Your task to perform on an android device: toggle priority inbox in the gmail app Image 0: 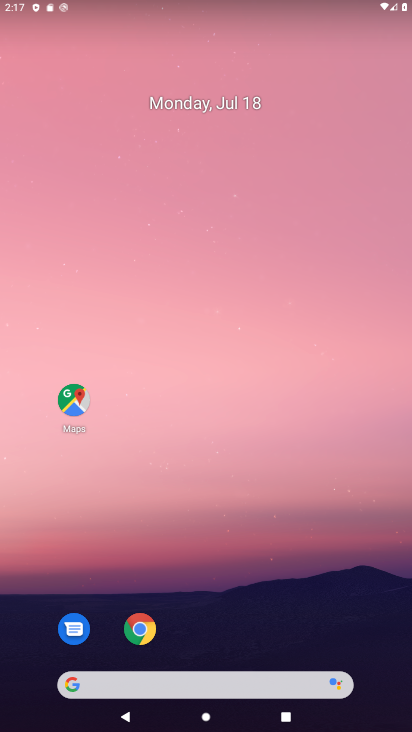
Step 0: drag from (153, 676) to (163, 135)
Your task to perform on an android device: toggle priority inbox in the gmail app Image 1: 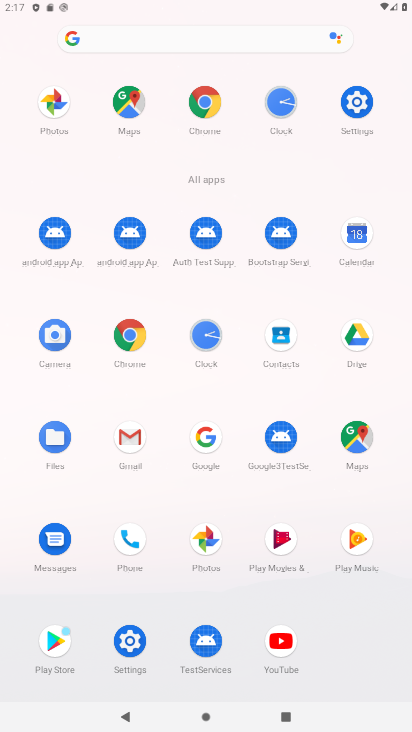
Step 1: click (134, 445)
Your task to perform on an android device: toggle priority inbox in the gmail app Image 2: 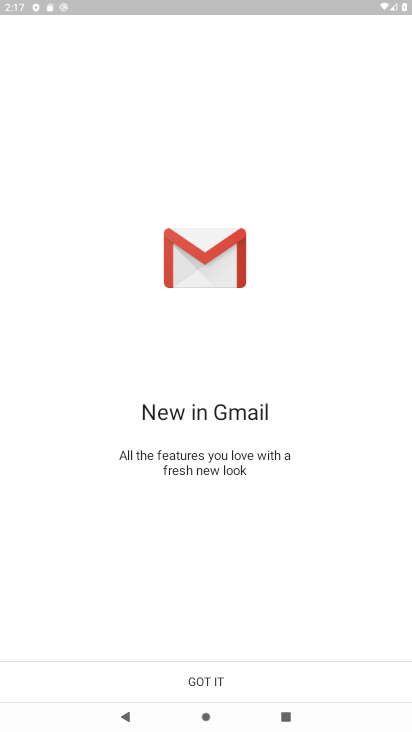
Step 2: click (212, 672)
Your task to perform on an android device: toggle priority inbox in the gmail app Image 3: 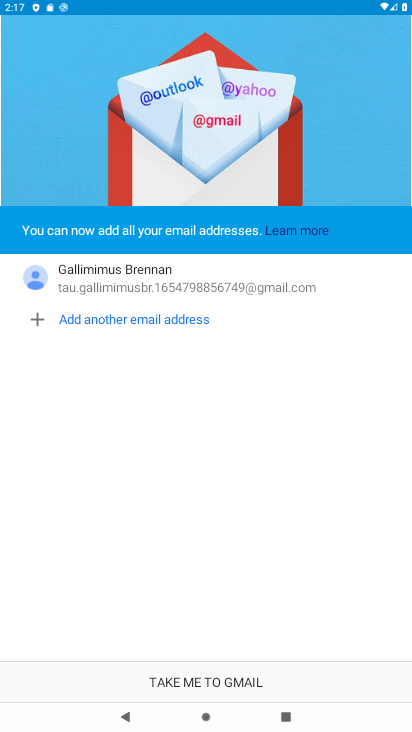
Step 3: click (208, 675)
Your task to perform on an android device: toggle priority inbox in the gmail app Image 4: 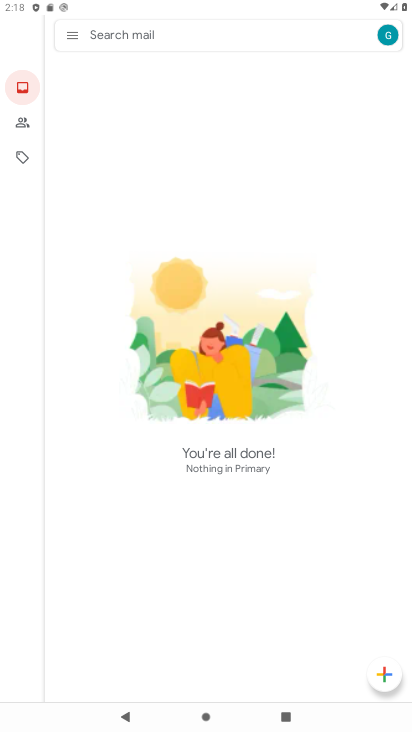
Step 4: click (74, 37)
Your task to perform on an android device: toggle priority inbox in the gmail app Image 5: 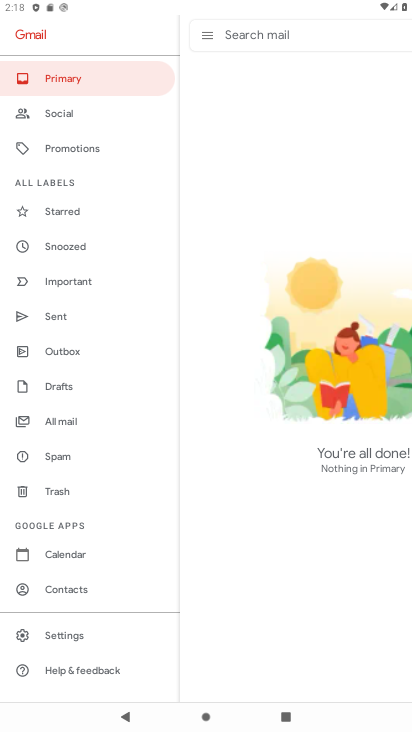
Step 5: click (74, 635)
Your task to perform on an android device: toggle priority inbox in the gmail app Image 6: 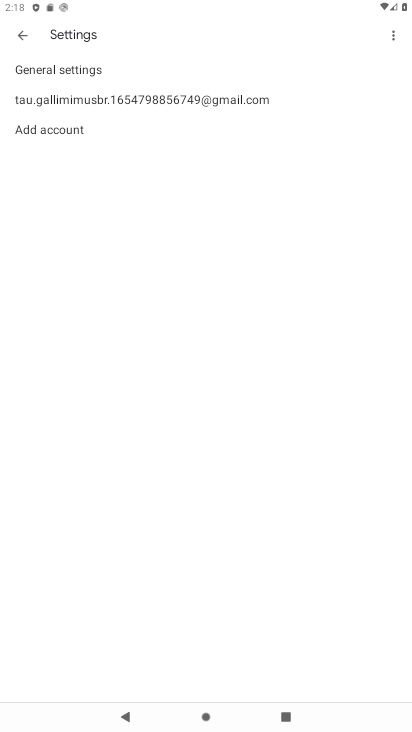
Step 6: click (83, 95)
Your task to perform on an android device: toggle priority inbox in the gmail app Image 7: 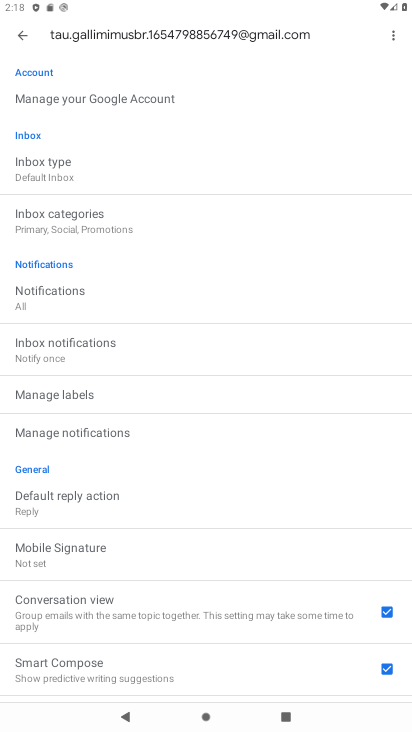
Step 7: click (52, 169)
Your task to perform on an android device: toggle priority inbox in the gmail app Image 8: 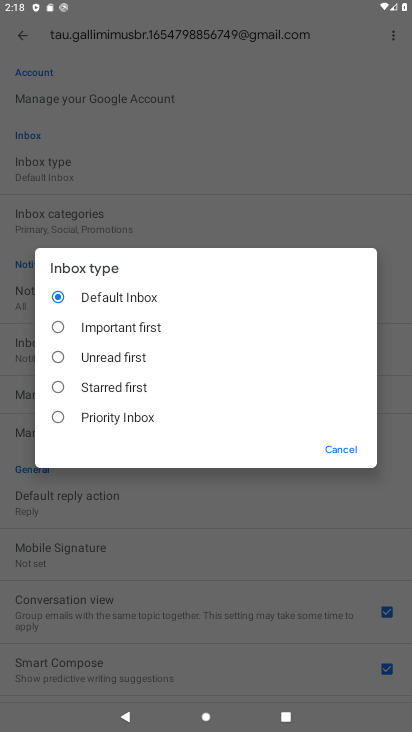
Step 8: click (99, 419)
Your task to perform on an android device: toggle priority inbox in the gmail app Image 9: 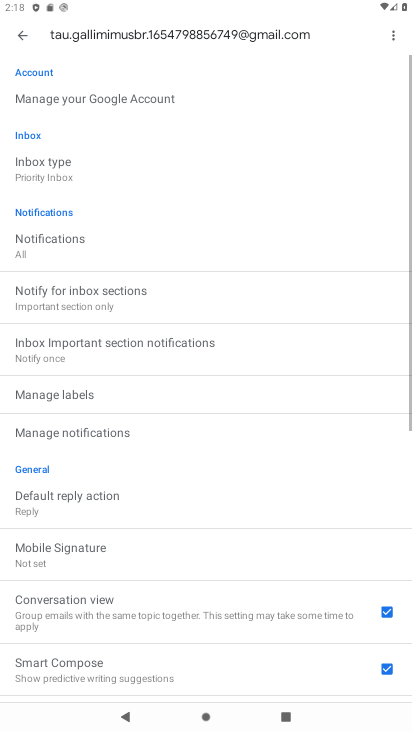
Step 9: task complete